Your task to perform on an android device: turn on location history Image 0: 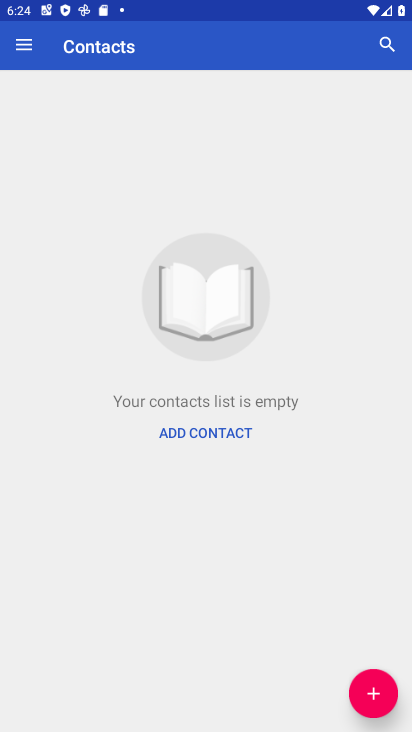
Step 0: press home button
Your task to perform on an android device: turn on location history Image 1: 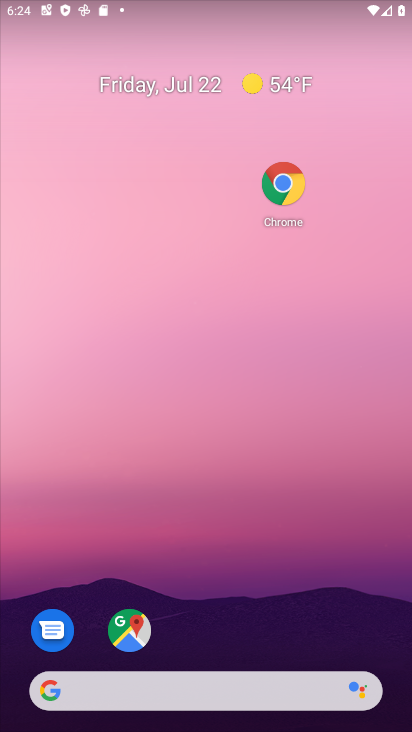
Step 1: drag from (179, 574) to (261, 190)
Your task to perform on an android device: turn on location history Image 2: 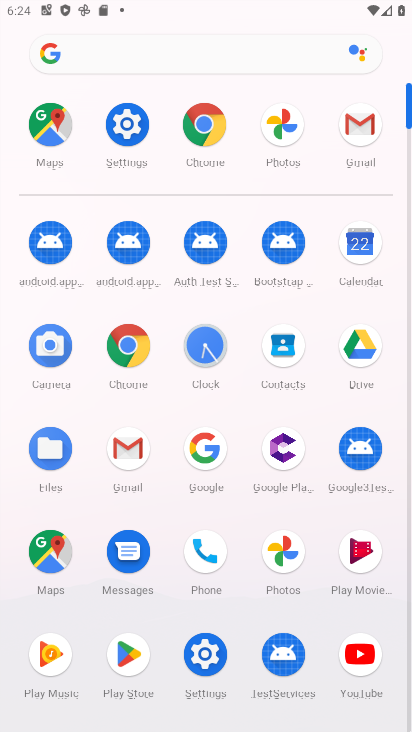
Step 2: click (119, 123)
Your task to perform on an android device: turn on location history Image 3: 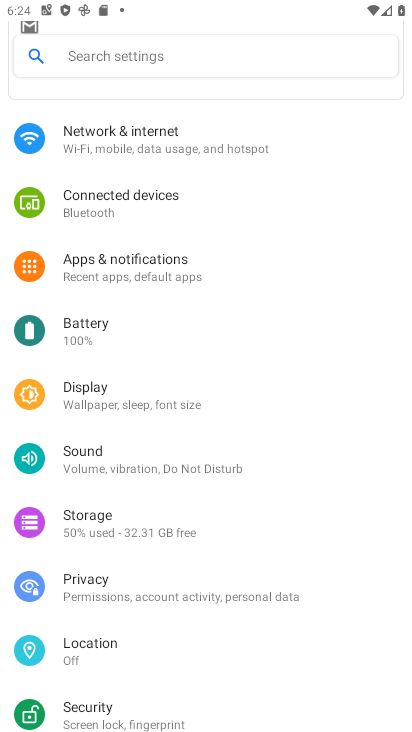
Step 3: click (113, 644)
Your task to perform on an android device: turn on location history Image 4: 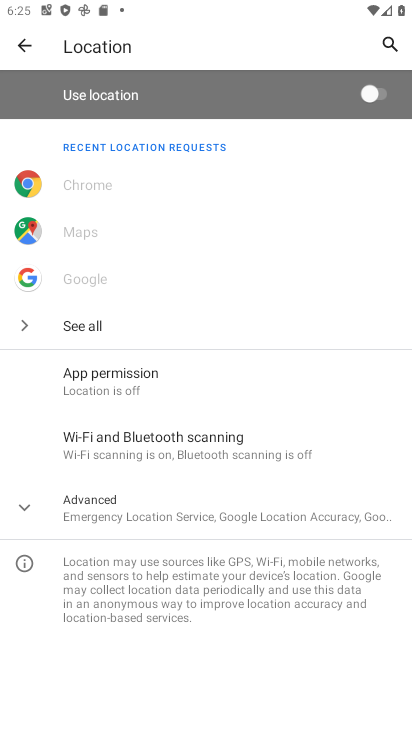
Step 4: click (124, 508)
Your task to perform on an android device: turn on location history Image 5: 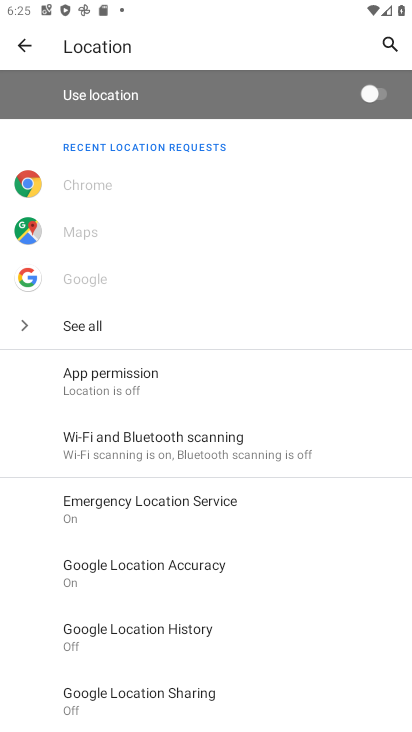
Step 5: click (197, 628)
Your task to perform on an android device: turn on location history Image 6: 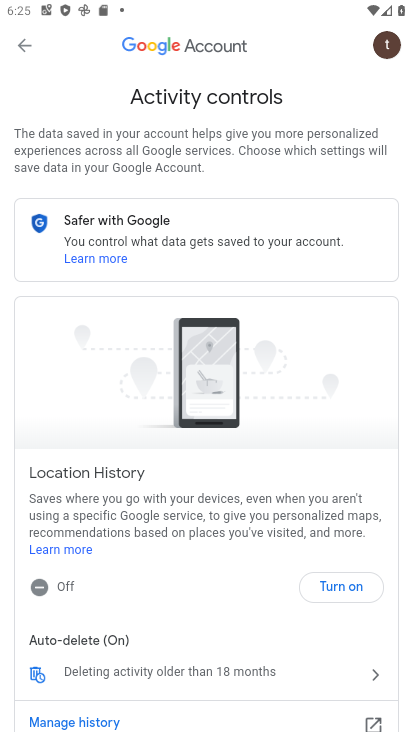
Step 6: click (348, 592)
Your task to perform on an android device: turn on location history Image 7: 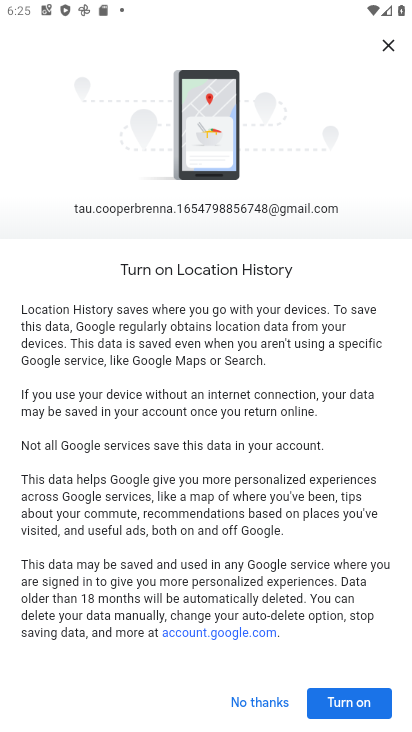
Step 7: click (348, 704)
Your task to perform on an android device: turn on location history Image 8: 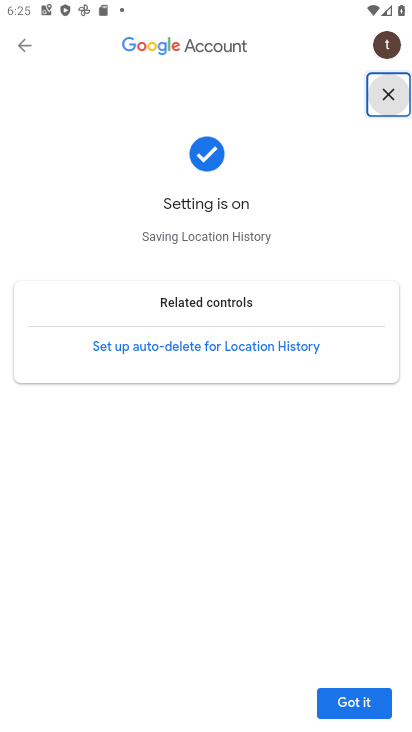
Step 8: click (347, 699)
Your task to perform on an android device: turn on location history Image 9: 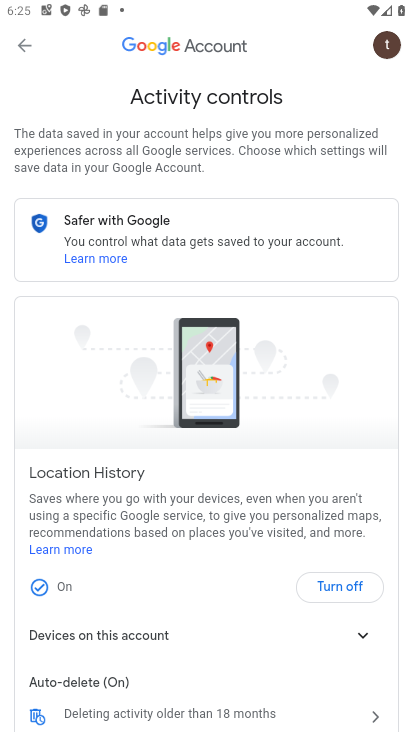
Step 9: task complete